Your task to perform on an android device: open chrome and create a bookmark for the current page Image 0: 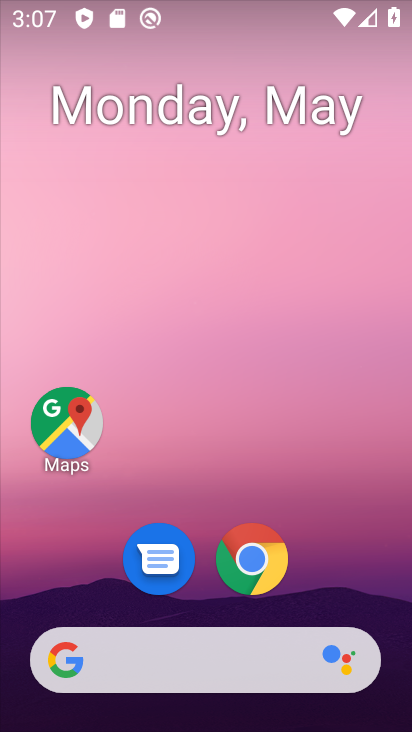
Step 0: drag from (303, 613) to (212, 17)
Your task to perform on an android device: open chrome and create a bookmark for the current page Image 1: 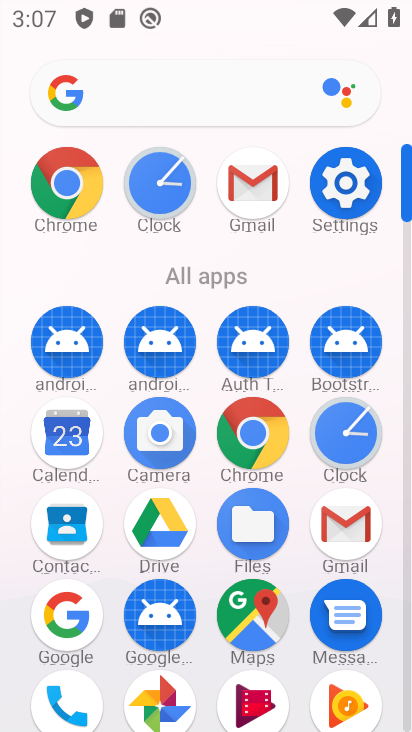
Step 1: drag from (290, 623) to (402, 231)
Your task to perform on an android device: open chrome and create a bookmark for the current page Image 2: 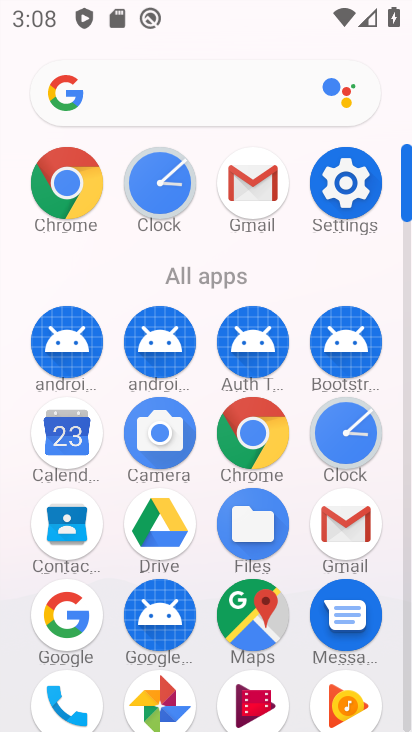
Step 2: click (53, 182)
Your task to perform on an android device: open chrome and create a bookmark for the current page Image 3: 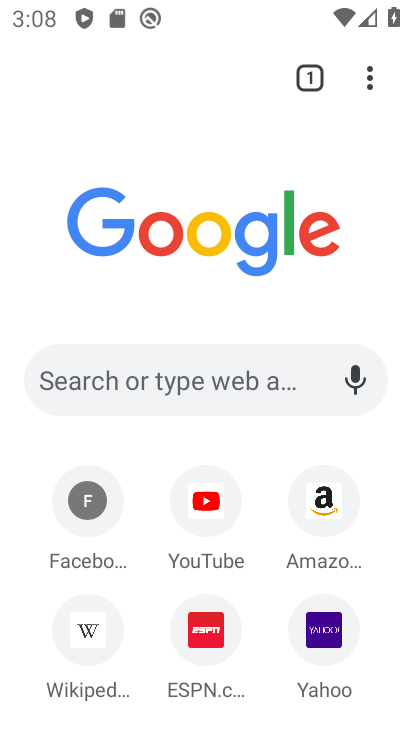
Step 3: click (66, 190)
Your task to perform on an android device: open chrome and create a bookmark for the current page Image 4: 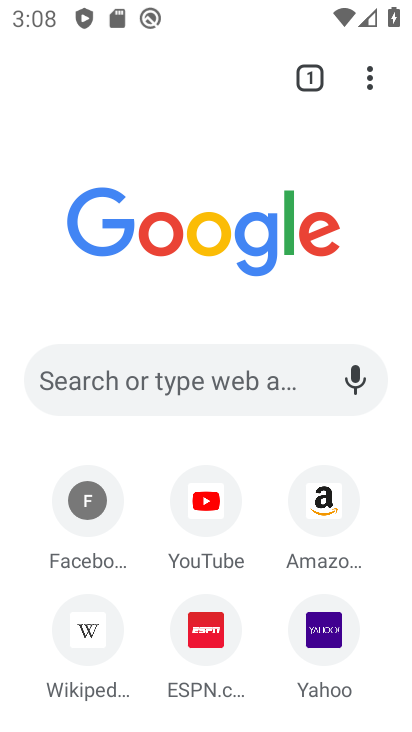
Step 4: drag from (368, 82) to (112, 253)
Your task to perform on an android device: open chrome and create a bookmark for the current page Image 5: 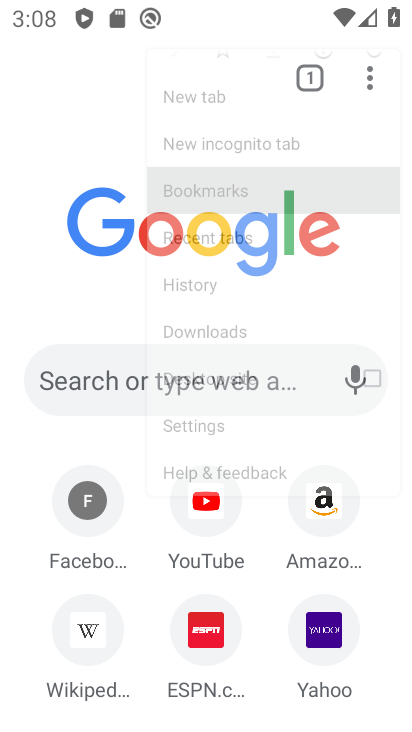
Step 5: click (120, 258)
Your task to perform on an android device: open chrome and create a bookmark for the current page Image 6: 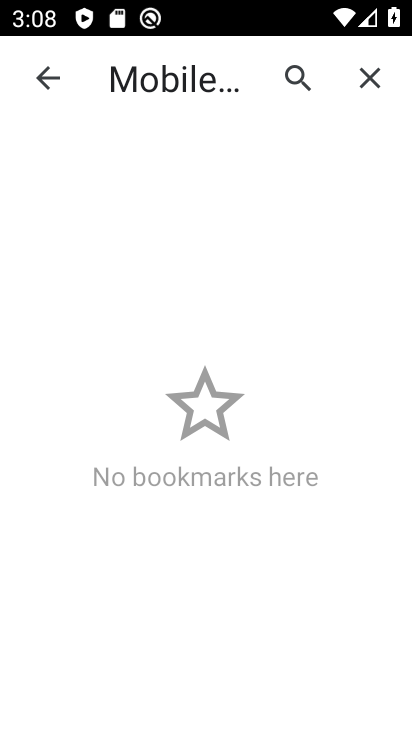
Step 6: click (41, 73)
Your task to perform on an android device: open chrome and create a bookmark for the current page Image 7: 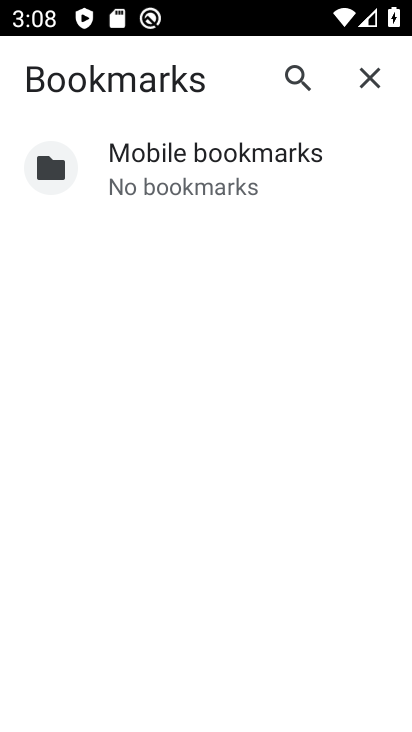
Step 7: click (356, 78)
Your task to perform on an android device: open chrome and create a bookmark for the current page Image 8: 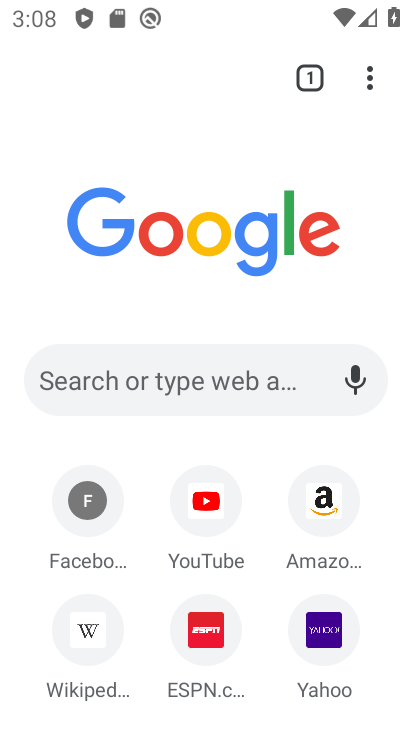
Step 8: click (371, 69)
Your task to perform on an android device: open chrome and create a bookmark for the current page Image 9: 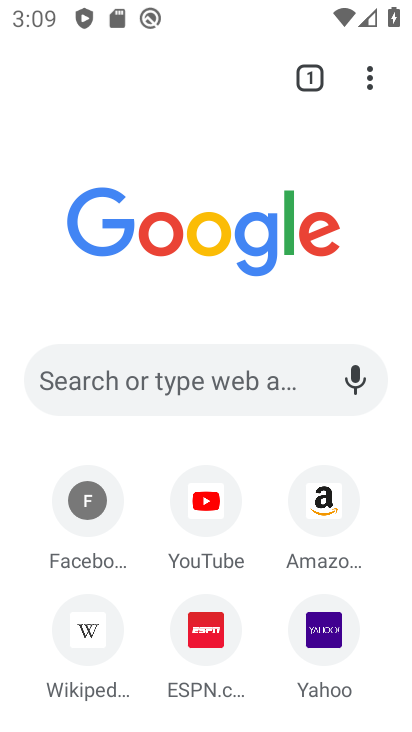
Step 9: click (107, 368)
Your task to perform on an android device: open chrome and create a bookmark for the current page Image 10: 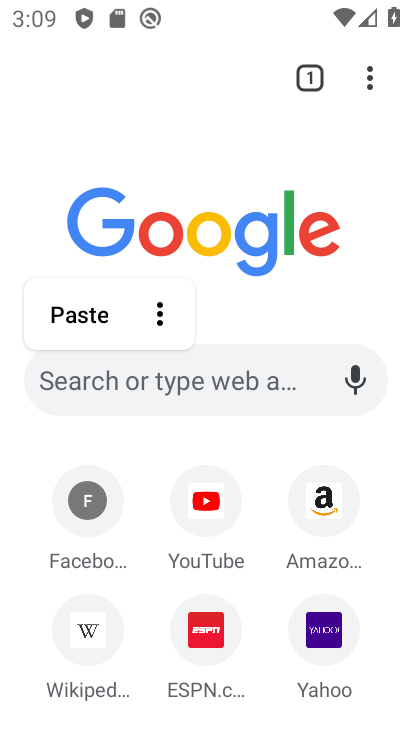
Step 10: task complete